Your task to perform on an android device: open the mobile data screen to see how much data has been used Image 0: 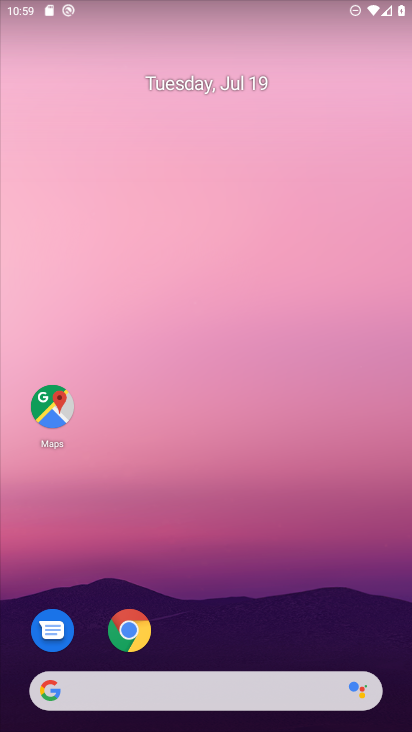
Step 0: drag from (197, 643) to (270, 28)
Your task to perform on an android device: open the mobile data screen to see how much data has been used Image 1: 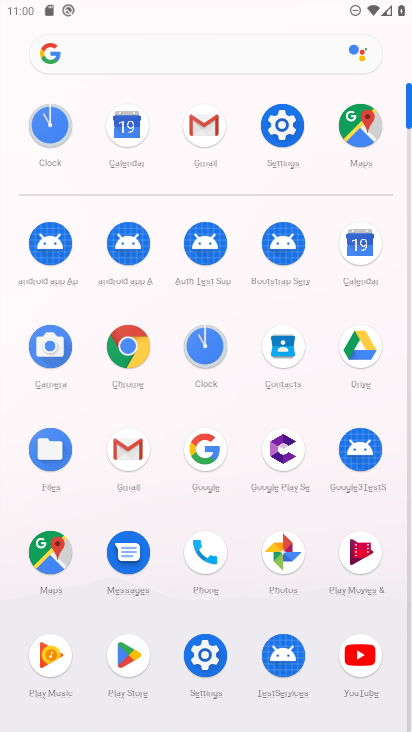
Step 1: click (197, 650)
Your task to perform on an android device: open the mobile data screen to see how much data has been used Image 2: 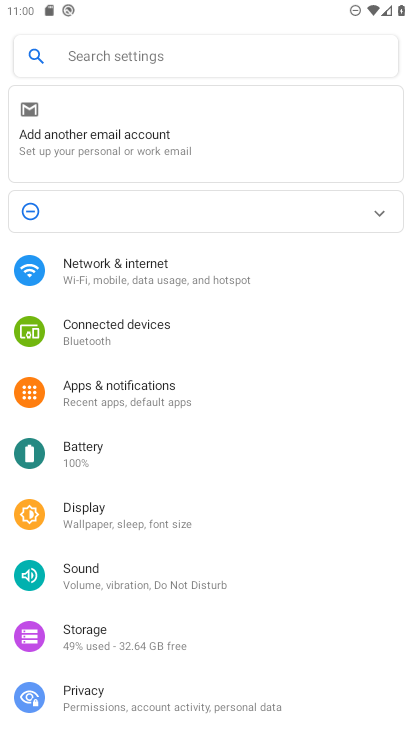
Step 2: click (169, 278)
Your task to perform on an android device: open the mobile data screen to see how much data has been used Image 3: 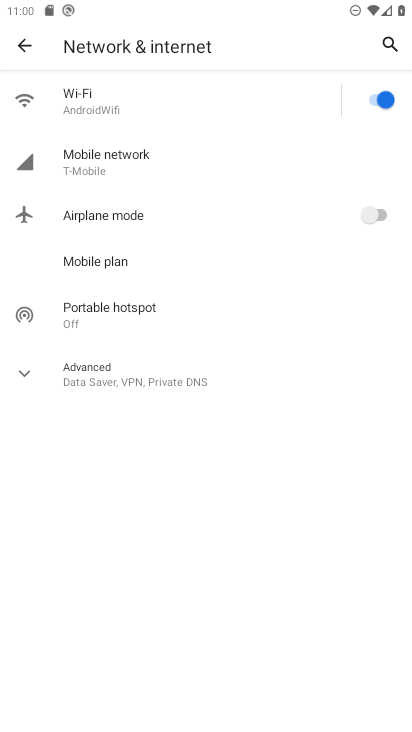
Step 3: click (139, 174)
Your task to perform on an android device: open the mobile data screen to see how much data has been used Image 4: 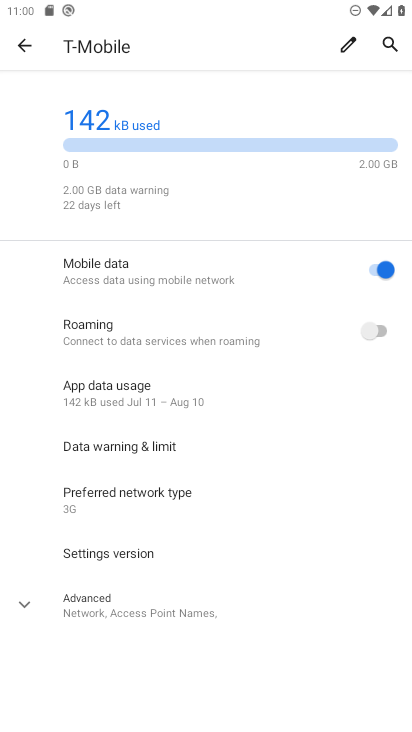
Step 4: task complete